Your task to perform on an android device: turn on priority inbox in the gmail app Image 0: 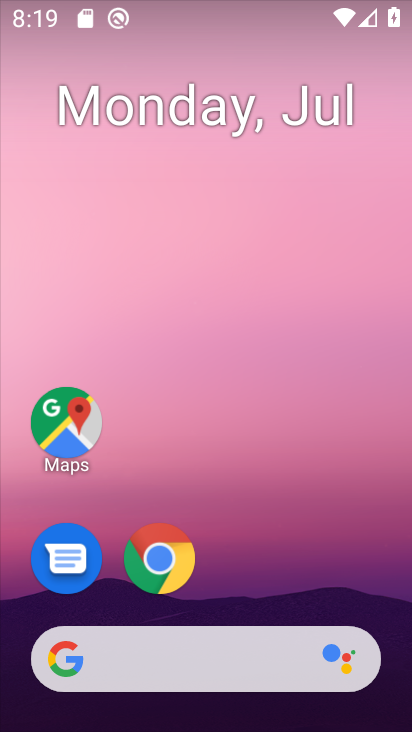
Step 0: drag from (345, 579) to (379, 99)
Your task to perform on an android device: turn on priority inbox in the gmail app Image 1: 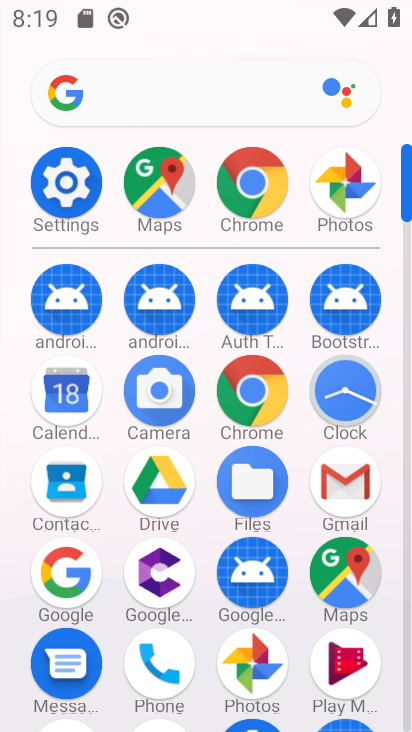
Step 1: click (344, 481)
Your task to perform on an android device: turn on priority inbox in the gmail app Image 2: 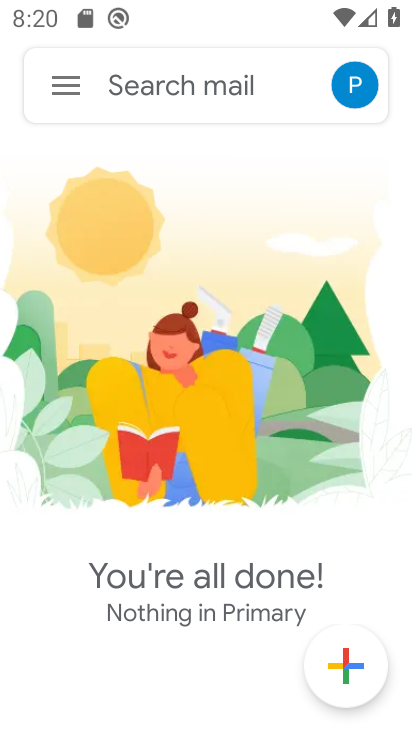
Step 2: click (68, 79)
Your task to perform on an android device: turn on priority inbox in the gmail app Image 3: 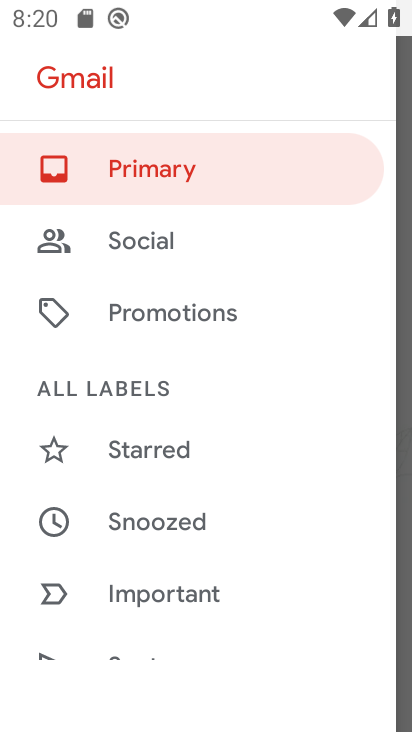
Step 3: drag from (294, 522) to (305, 397)
Your task to perform on an android device: turn on priority inbox in the gmail app Image 4: 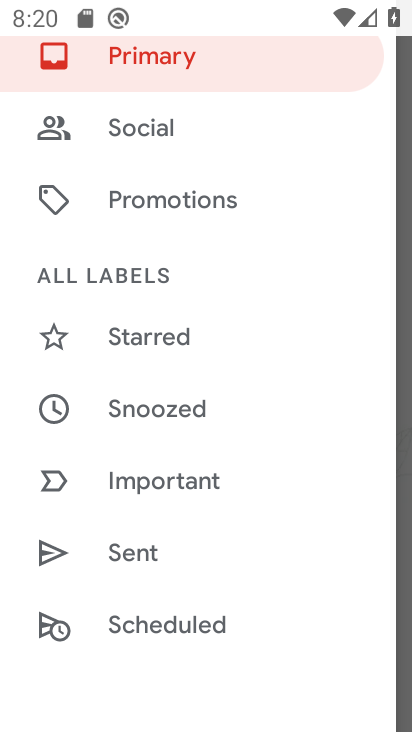
Step 4: drag from (303, 528) to (311, 432)
Your task to perform on an android device: turn on priority inbox in the gmail app Image 5: 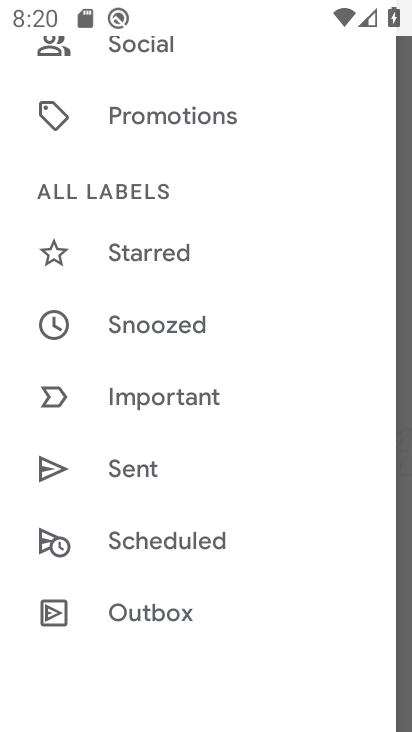
Step 5: drag from (307, 536) to (314, 453)
Your task to perform on an android device: turn on priority inbox in the gmail app Image 6: 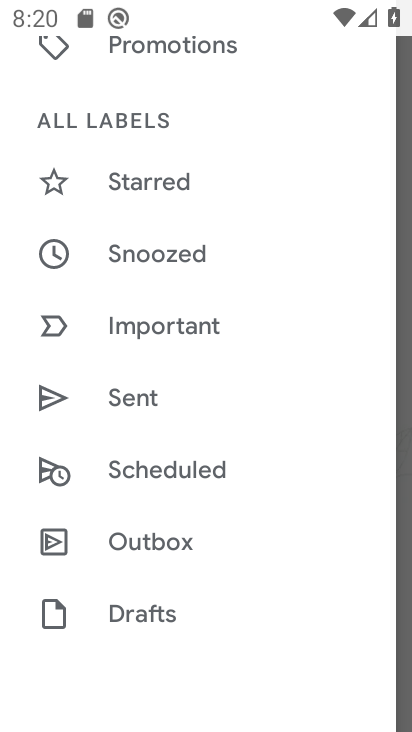
Step 6: drag from (299, 575) to (297, 475)
Your task to perform on an android device: turn on priority inbox in the gmail app Image 7: 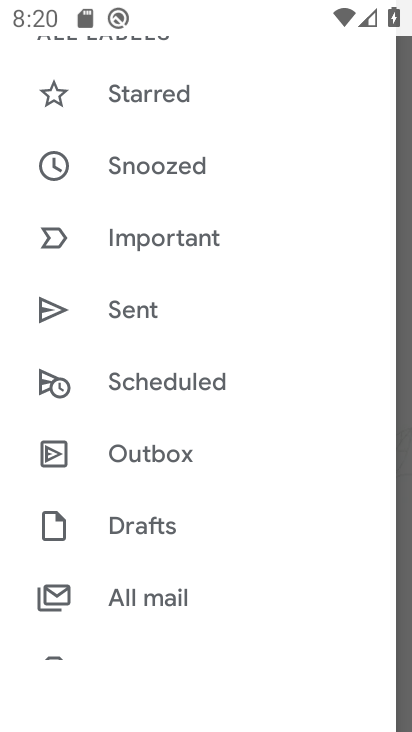
Step 7: drag from (281, 546) to (281, 454)
Your task to perform on an android device: turn on priority inbox in the gmail app Image 8: 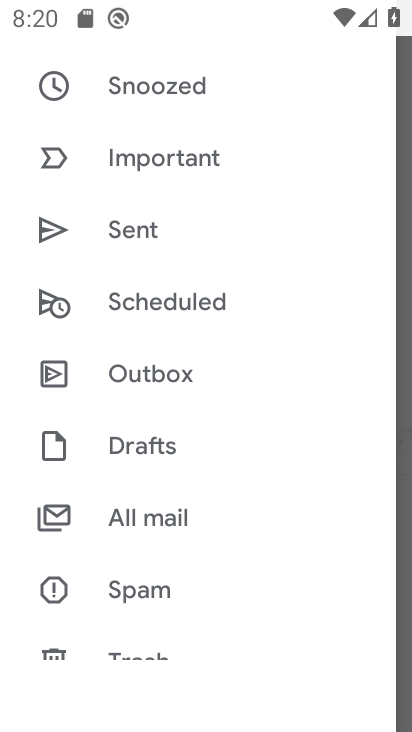
Step 8: drag from (276, 550) to (281, 375)
Your task to perform on an android device: turn on priority inbox in the gmail app Image 9: 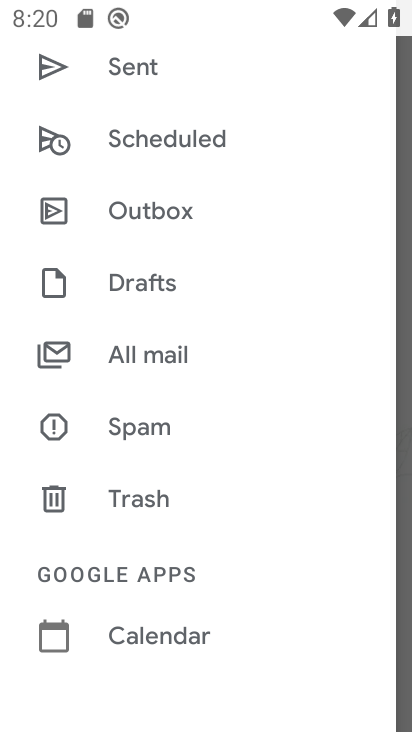
Step 9: drag from (264, 533) to (286, 292)
Your task to perform on an android device: turn on priority inbox in the gmail app Image 10: 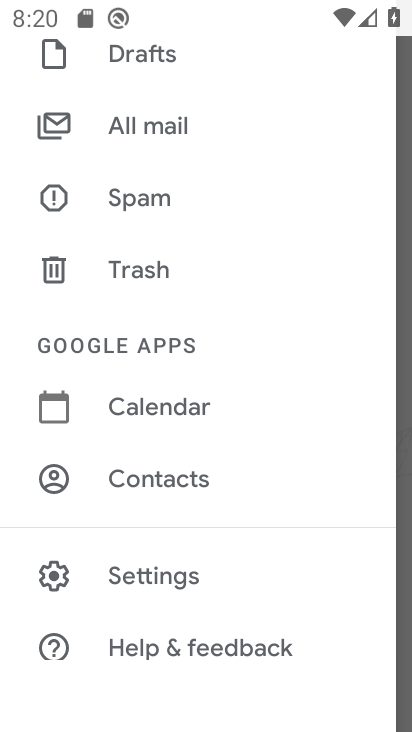
Step 10: drag from (285, 530) to (289, 408)
Your task to perform on an android device: turn on priority inbox in the gmail app Image 11: 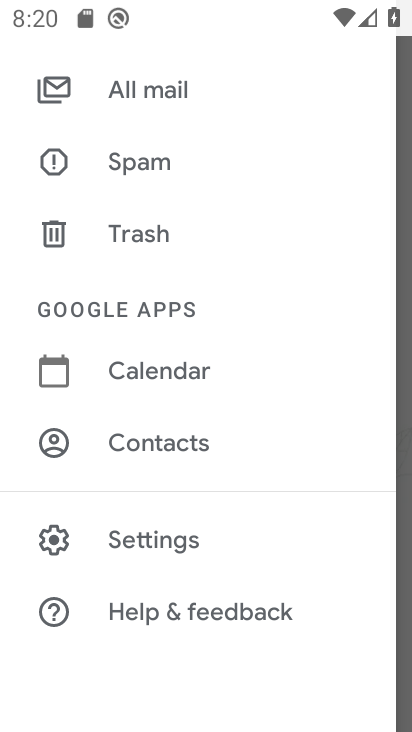
Step 11: click (245, 544)
Your task to perform on an android device: turn on priority inbox in the gmail app Image 12: 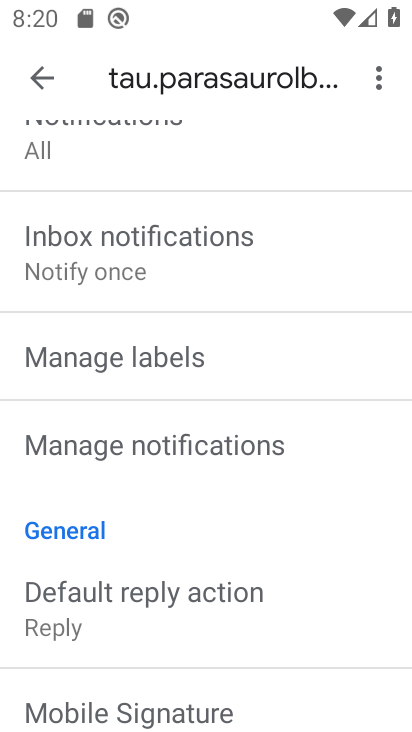
Step 12: drag from (304, 552) to (322, 457)
Your task to perform on an android device: turn on priority inbox in the gmail app Image 13: 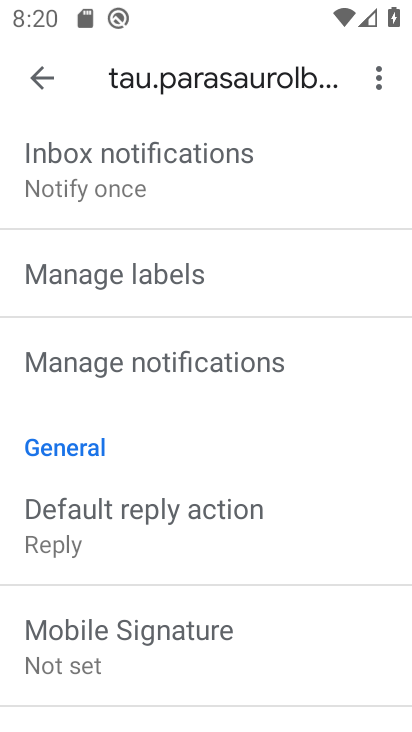
Step 13: drag from (332, 270) to (333, 400)
Your task to perform on an android device: turn on priority inbox in the gmail app Image 14: 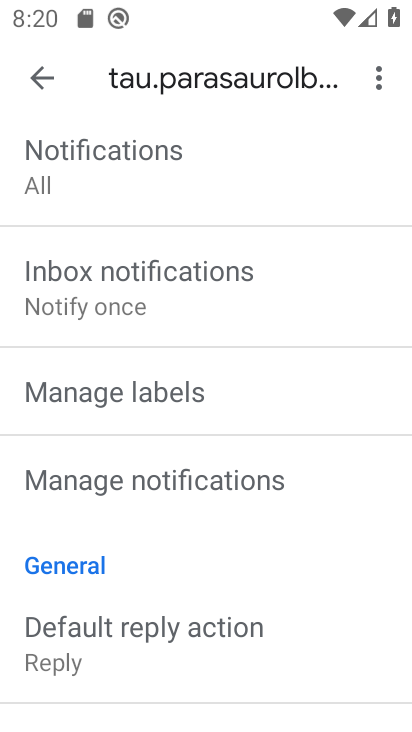
Step 14: drag from (329, 262) to (329, 444)
Your task to perform on an android device: turn on priority inbox in the gmail app Image 15: 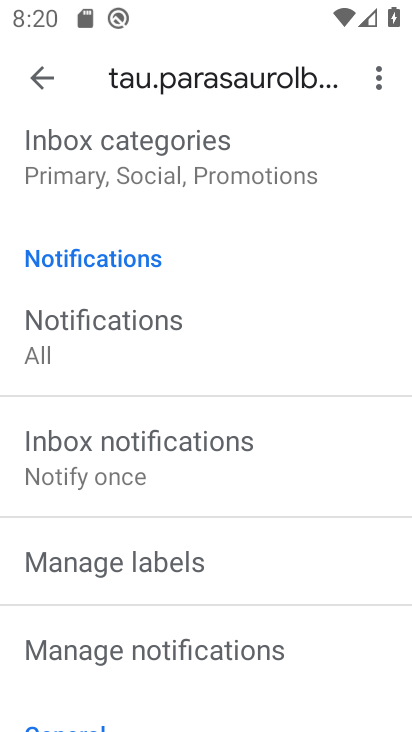
Step 15: drag from (327, 277) to (329, 399)
Your task to perform on an android device: turn on priority inbox in the gmail app Image 16: 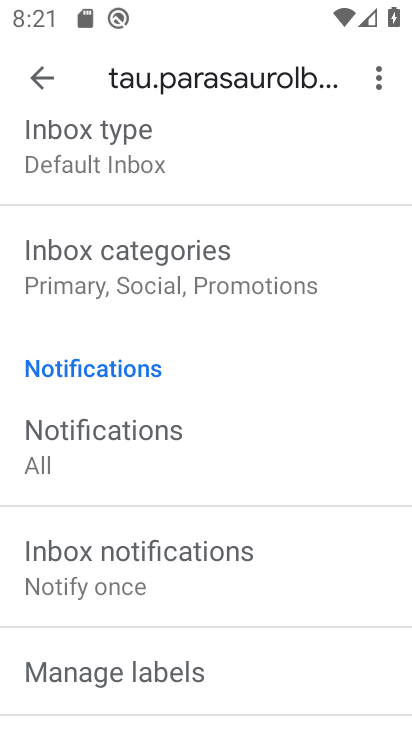
Step 16: drag from (334, 233) to (339, 363)
Your task to perform on an android device: turn on priority inbox in the gmail app Image 17: 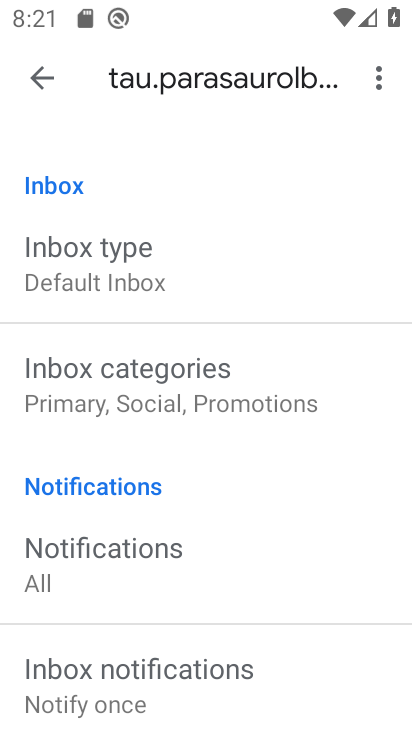
Step 17: click (163, 269)
Your task to perform on an android device: turn on priority inbox in the gmail app Image 18: 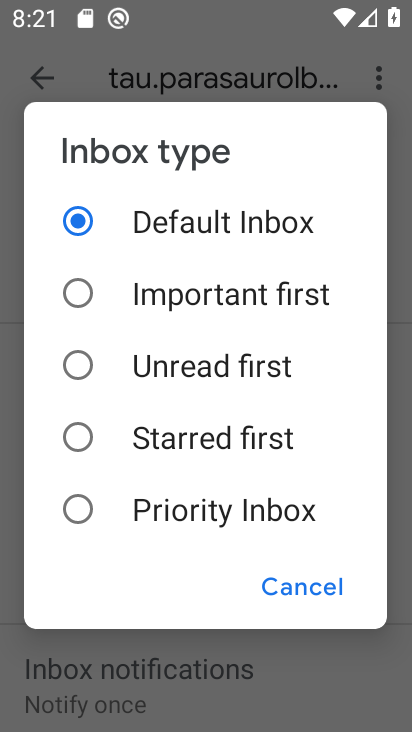
Step 18: click (185, 508)
Your task to perform on an android device: turn on priority inbox in the gmail app Image 19: 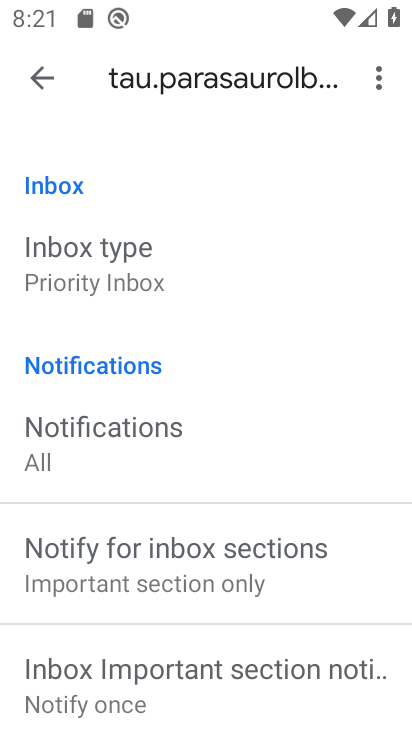
Step 19: task complete